Your task to perform on an android device: star an email in the gmail app Image 0: 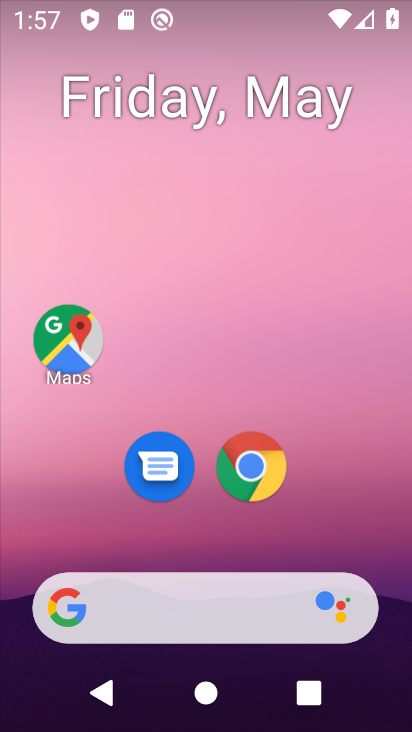
Step 0: drag from (313, 183) to (325, 62)
Your task to perform on an android device: star an email in the gmail app Image 1: 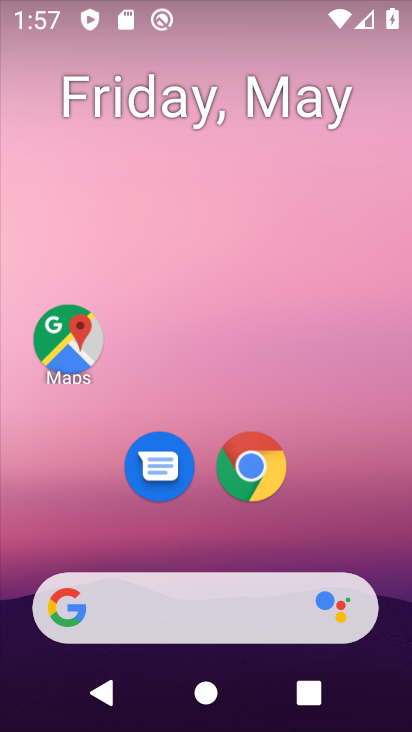
Step 1: drag from (330, 530) to (329, 97)
Your task to perform on an android device: star an email in the gmail app Image 2: 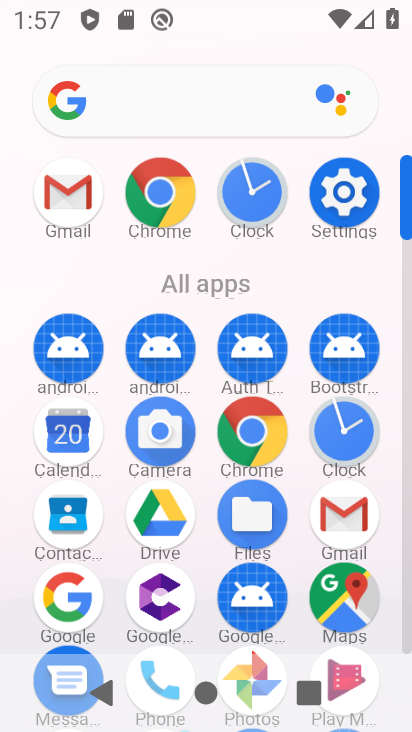
Step 2: click (345, 520)
Your task to perform on an android device: star an email in the gmail app Image 3: 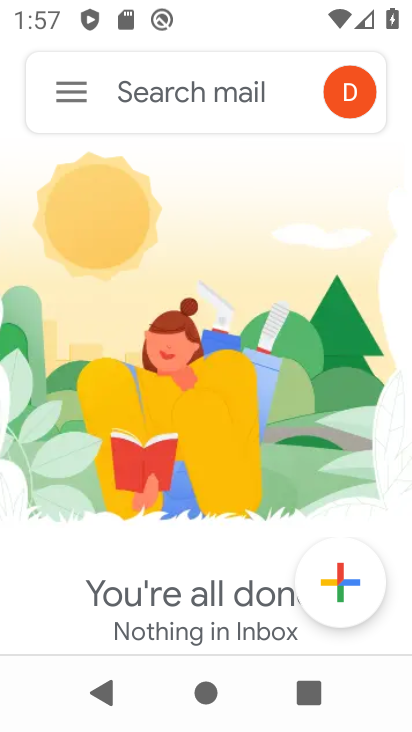
Step 3: task complete